Your task to perform on an android device: Open CNN.com Image 0: 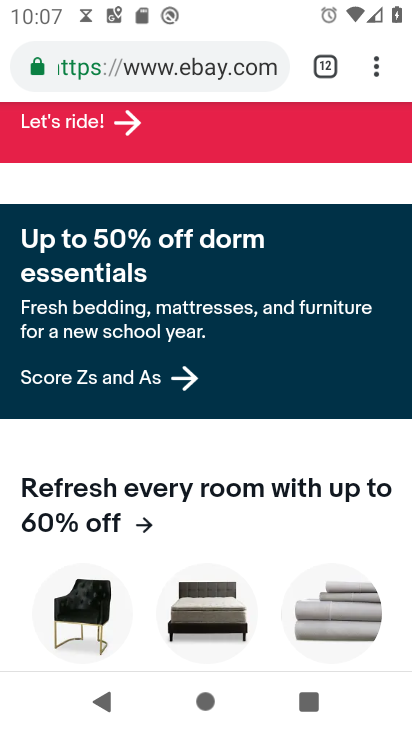
Step 0: press home button
Your task to perform on an android device: Open CNN.com Image 1: 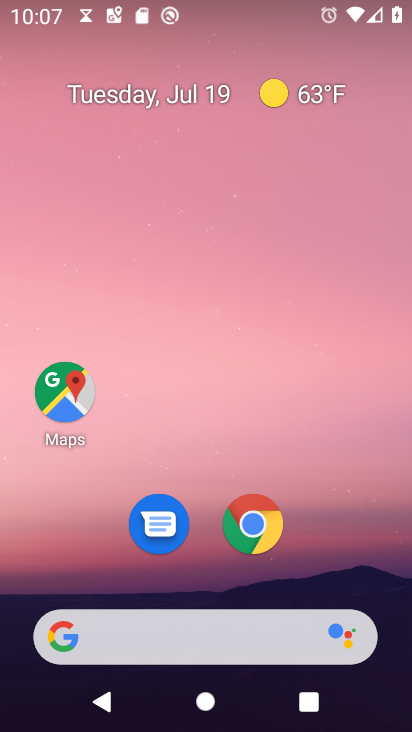
Step 1: click (254, 535)
Your task to perform on an android device: Open CNN.com Image 2: 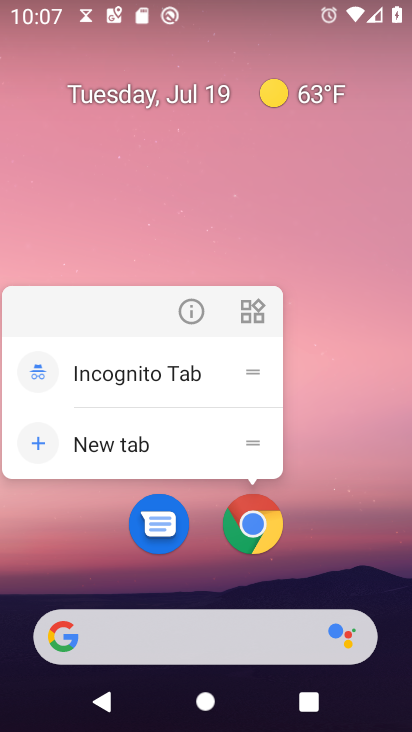
Step 2: click (255, 519)
Your task to perform on an android device: Open CNN.com Image 3: 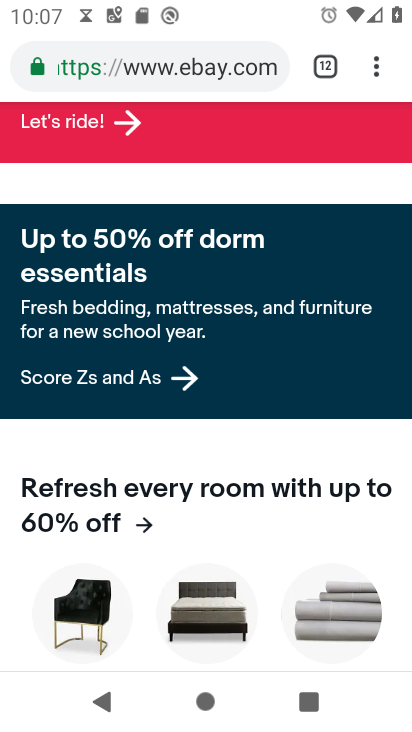
Step 3: drag from (370, 64) to (256, 124)
Your task to perform on an android device: Open CNN.com Image 4: 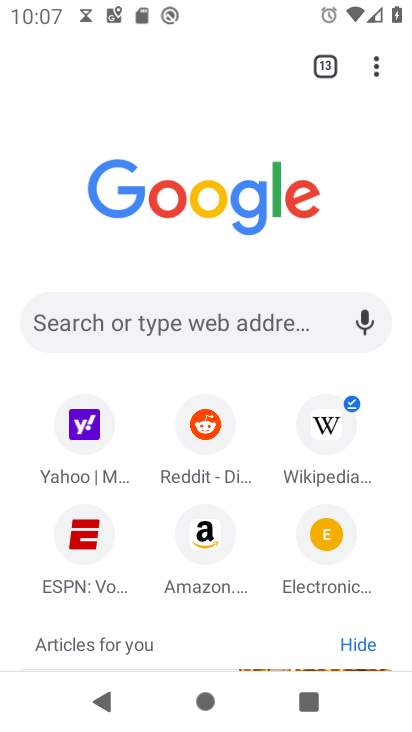
Step 4: click (167, 314)
Your task to perform on an android device: Open CNN.com Image 5: 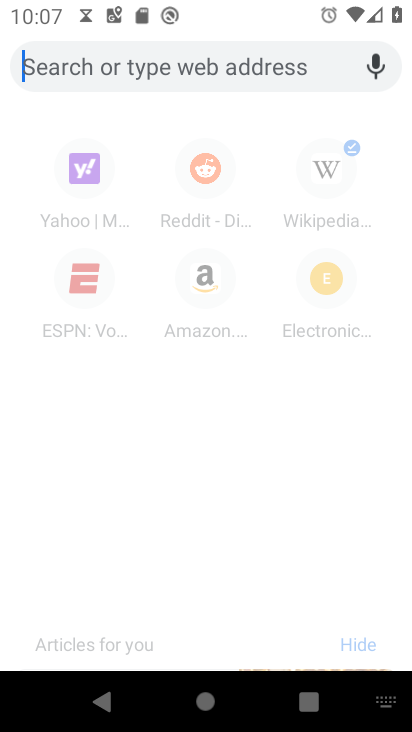
Step 5: type "cnn.com"
Your task to perform on an android device: Open CNN.com Image 6: 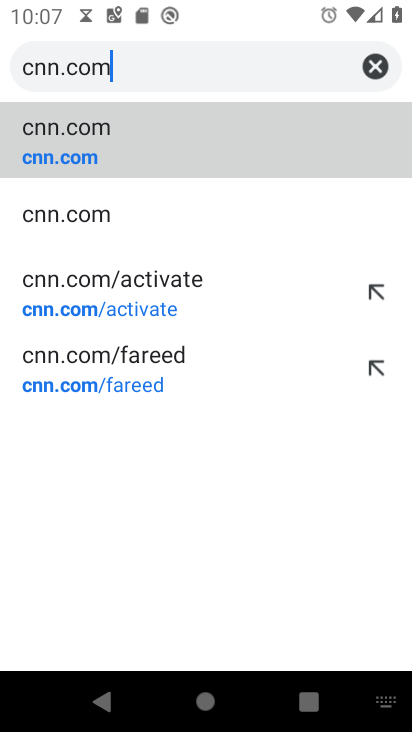
Step 6: click (91, 133)
Your task to perform on an android device: Open CNN.com Image 7: 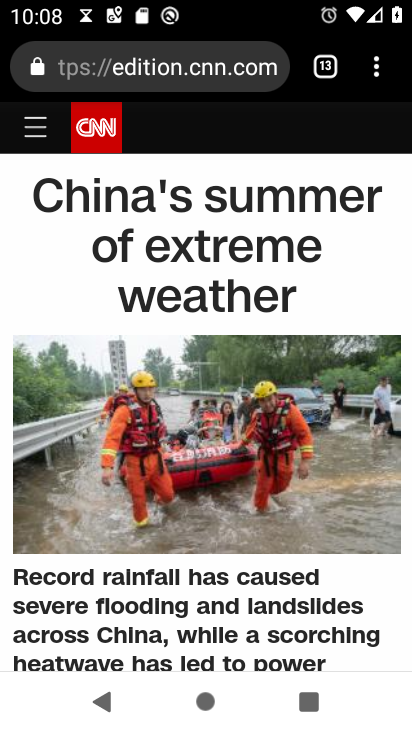
Step 7: drag from (219, 621) to (306, 218)
Your task to perform on an android device: Open CNN.com Image 8: 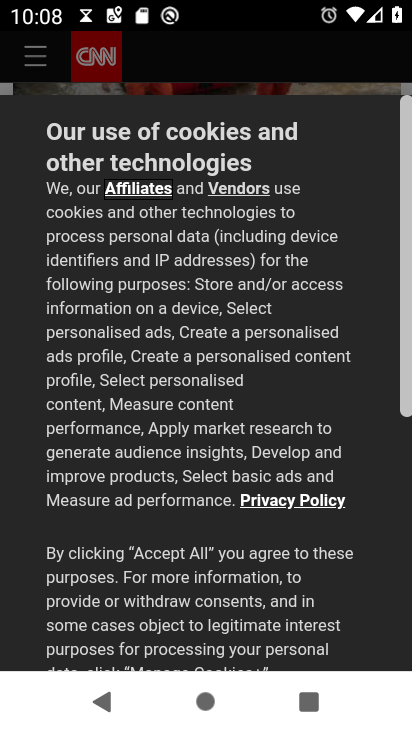
Step 8: drag from (206, 564) to (302, 126)
Your task to perform on an android device: Open CNN.com Image 9: 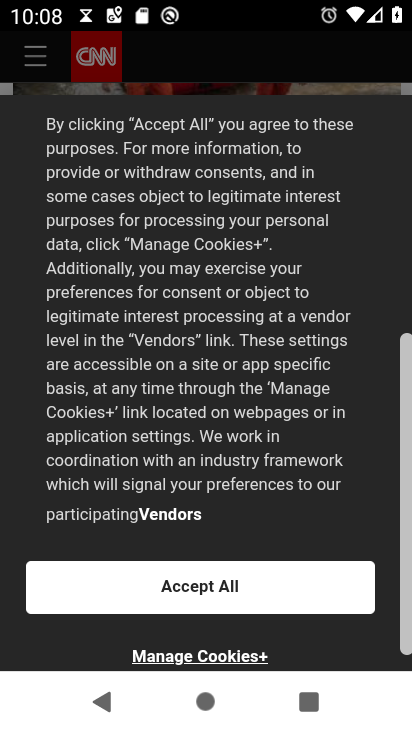
Step 9: click (204, 594)
Your task to perform on an android device: Open CNN.com Image 10: 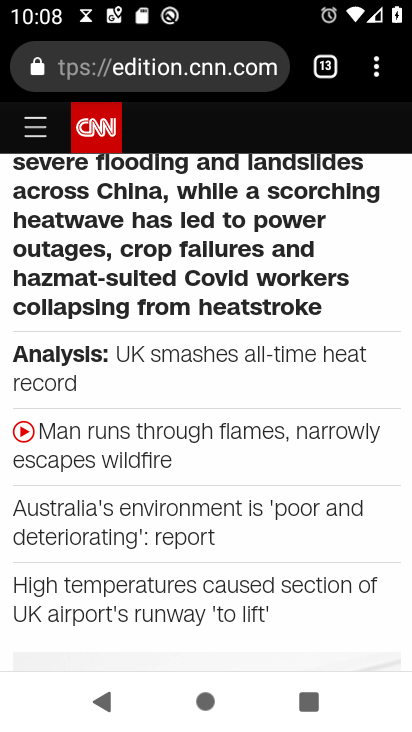
Step 10: task complete